Your task to perform on an android device: Go to Wikipedia Image 0: 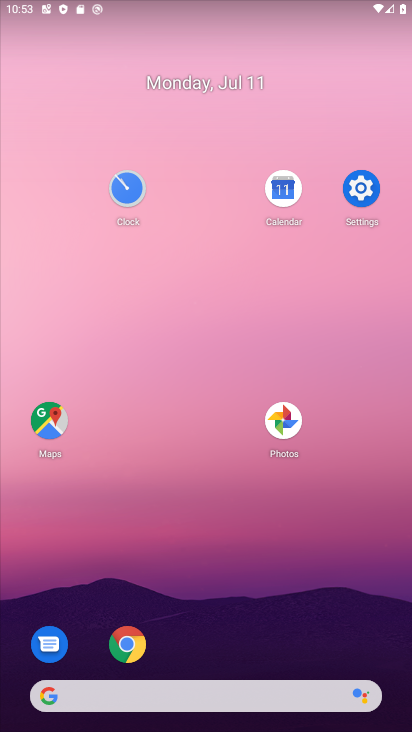
Step 0: click (132, 641)
Your task to perform on an android device: Go to Wikipedia Image 1: 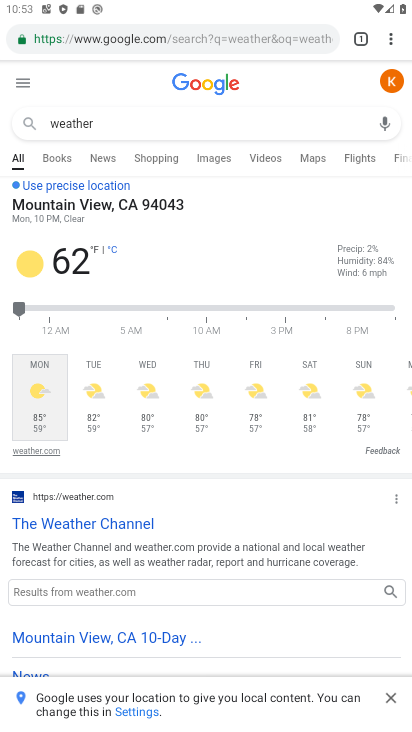
Step 1: click (360, 40)
Your task to perform on an android device: Go to Wikipedia Image 2: 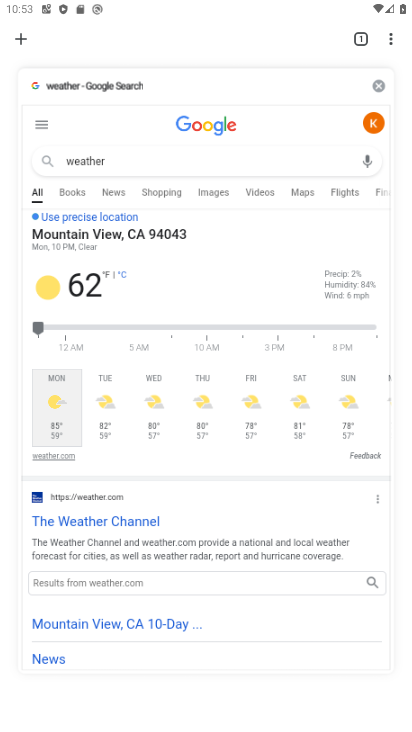
Step 2: click (15, 47)
Your task to perform on an android device: Go to Wikipedia Image 3: 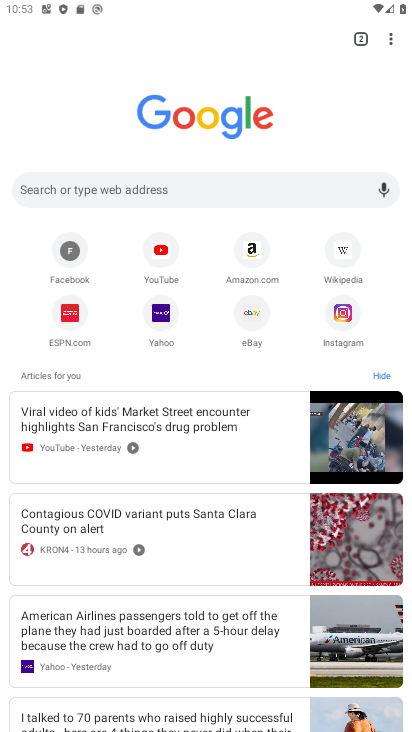
Step 3: click (339, 246)
Your task to perform on an android device: Go to Wikipedia Image 4: 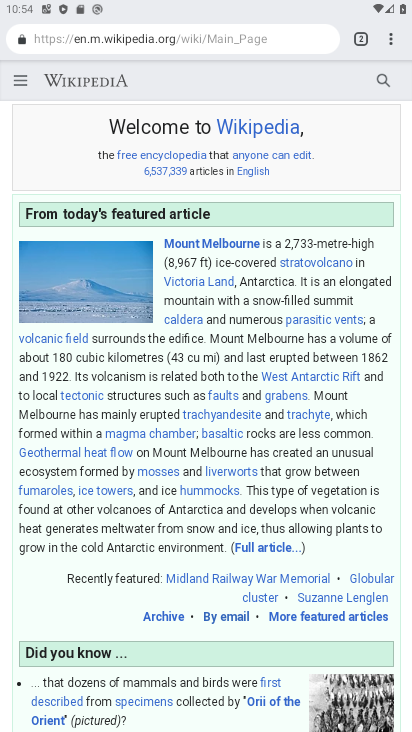
Step 4: task complete